Your task to perform on an android device: check battery use Image 0: 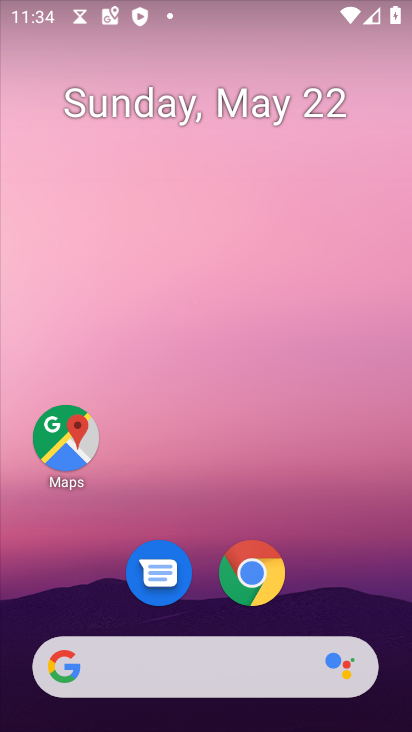
Step 0: drag from (189, 668) to (337, 5)
Your task to perform on an android device: check battery use Image 1: 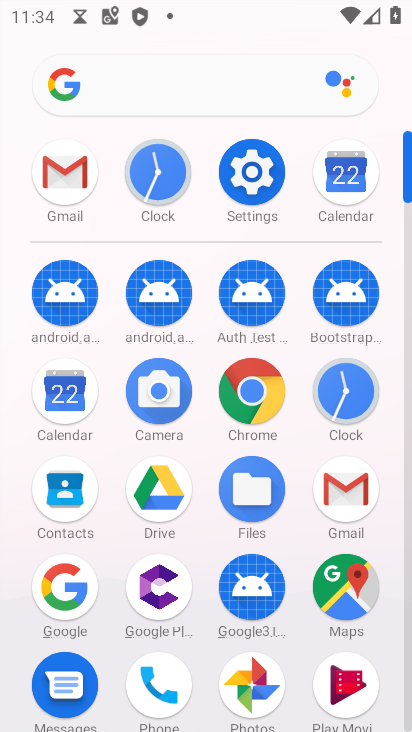
Step 1: click (257, 178)
Your task to perform on an android device: check battery use Image 2: 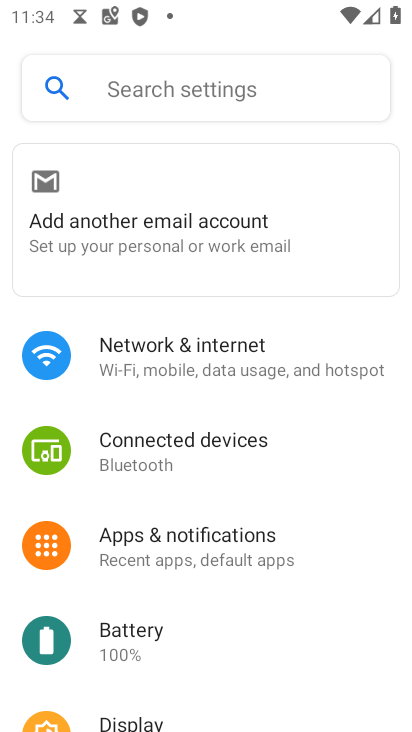
Step 2: drag from (213, 610) to (291, 309)
Your task to perform on an android device: check battery use Image 3: 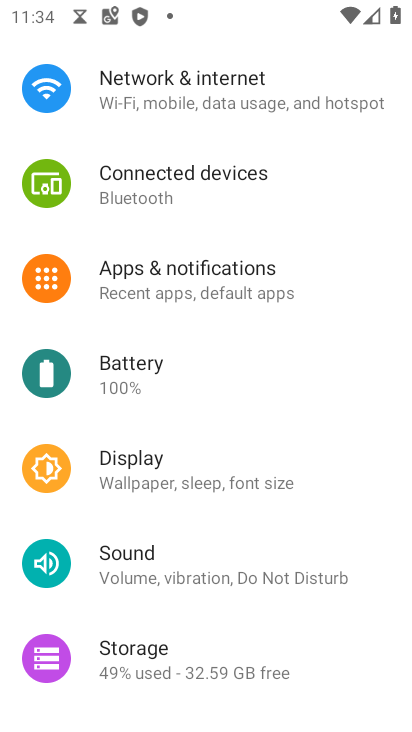
Step 3: click (151, 376)
Your task to perform on an android device: check battery use Image 4: 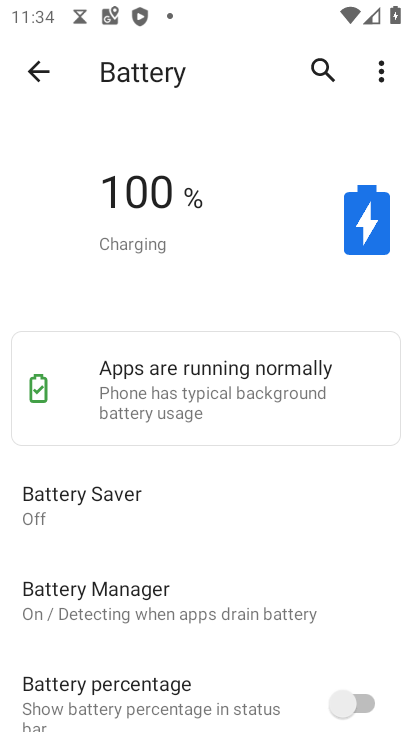
Step 4: click (381, 68)
Your task to perform on an android device: check battery use Image 5: 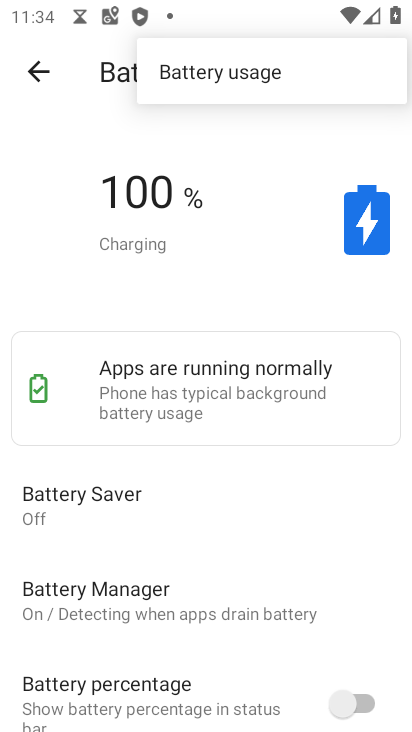
Step 5: click (258, 74)
Your task to perform on an android device: check battery use Image 6: 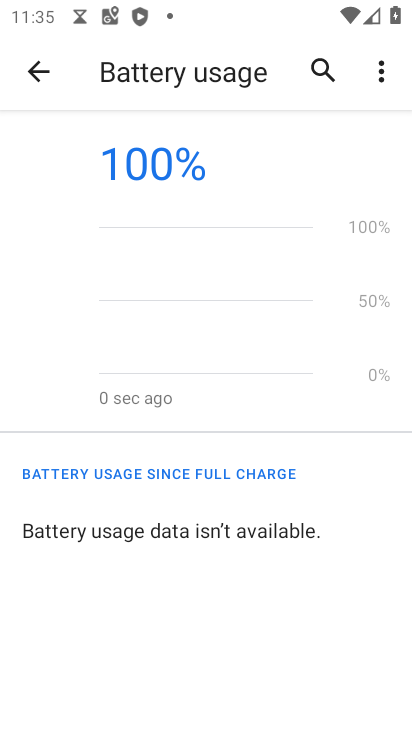
Step 6: task complete